Your task to perform on an android device: install app "HBO Max: Stream TV & Movies" Image 0: 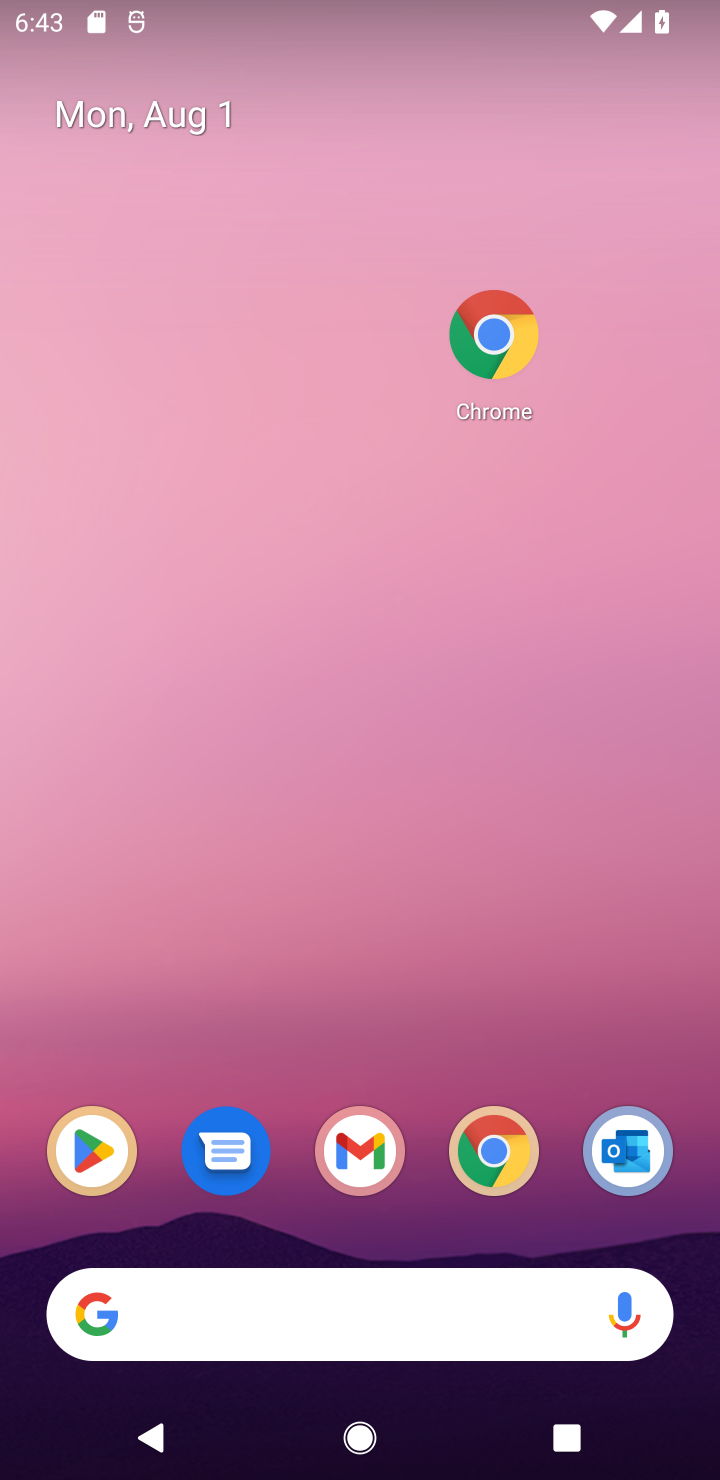
Step 0: click (104, 1150)
Your task to perform on an android device: install app "HBO Max: Stream TV & Movies" Image 1: 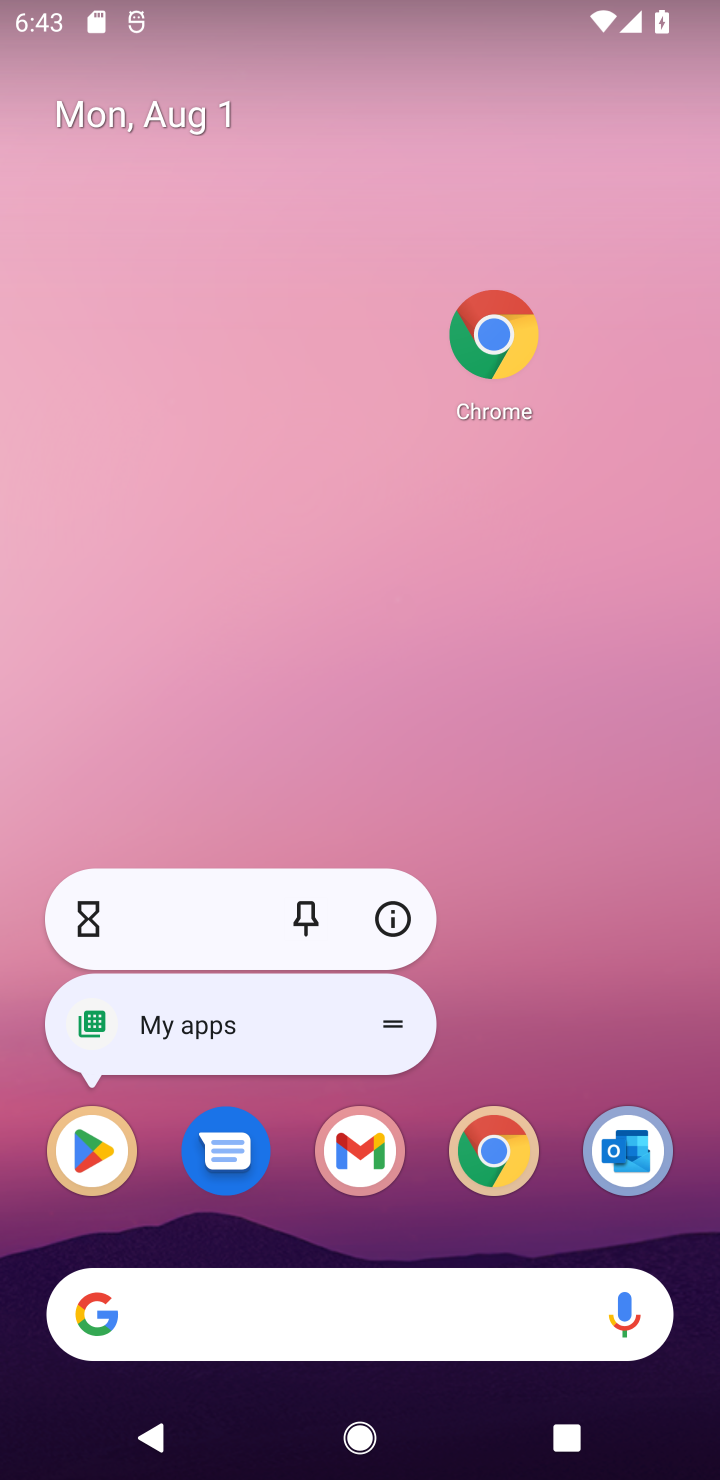
Step 1: click (104, 1150)
Your task to perform on an android device: install app "HBO Max: Stream TV & Movies" Image 2: 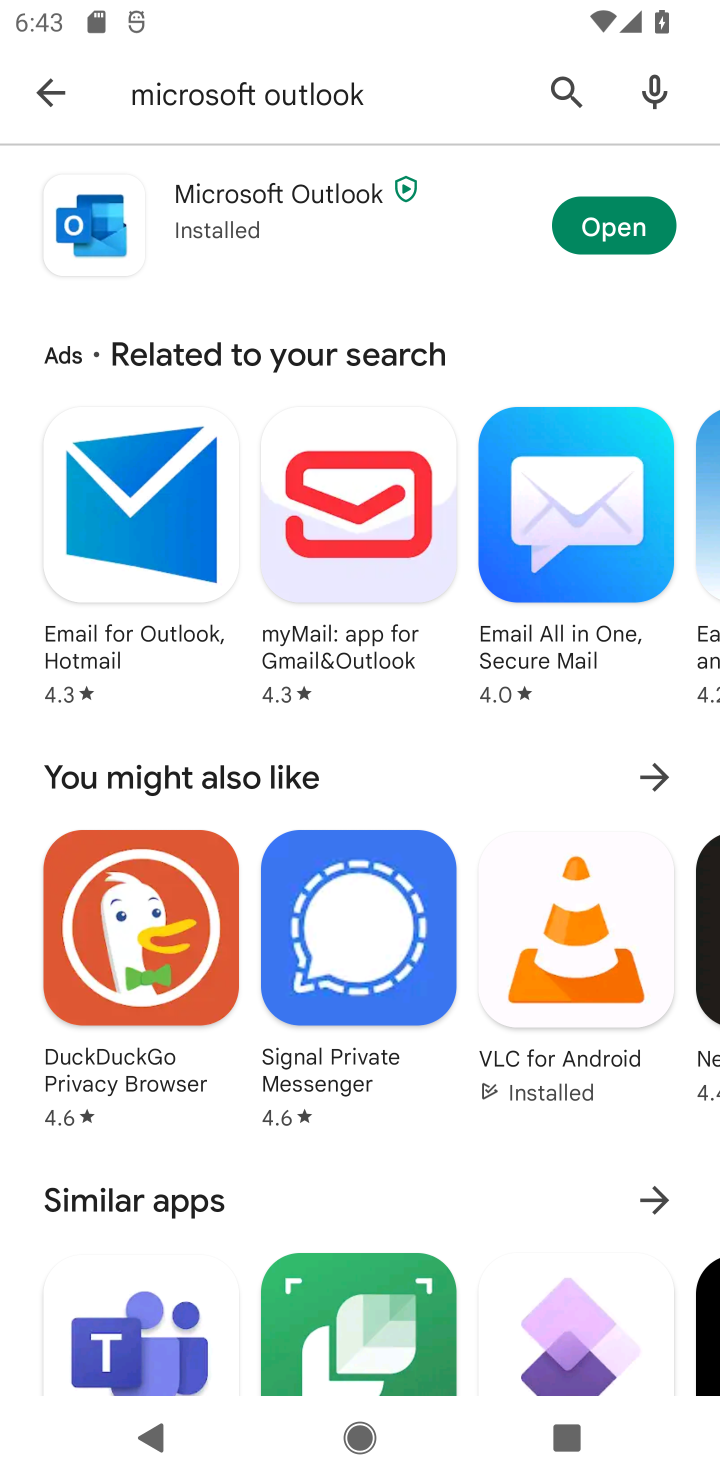
Step 2: click (559, 86)
Your task to perform on an android device: install app "HBO Max: Stream TV & Movies" Image 3: 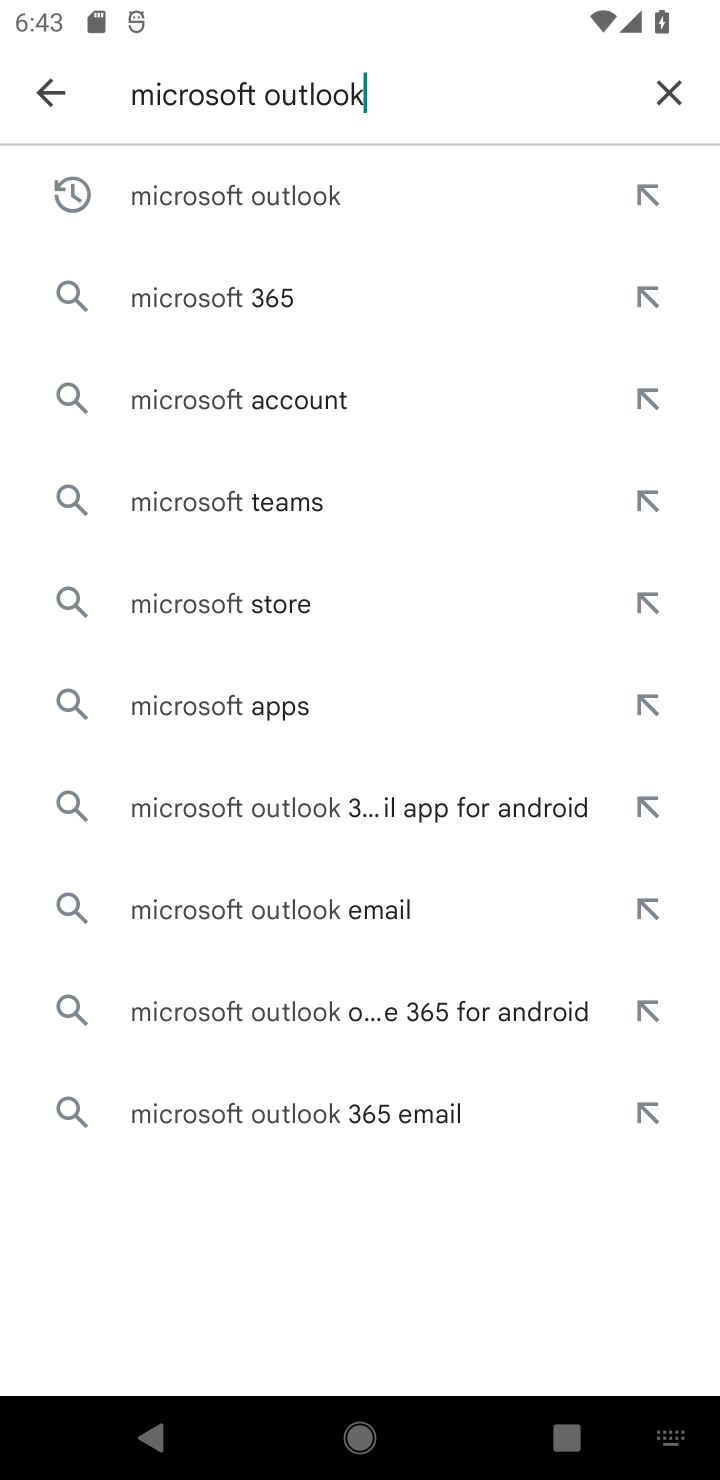
Step 3: click (668, 86)
Your task to perform on an android device: install app "HBO Max: Stream TV & Movies" Image 4: 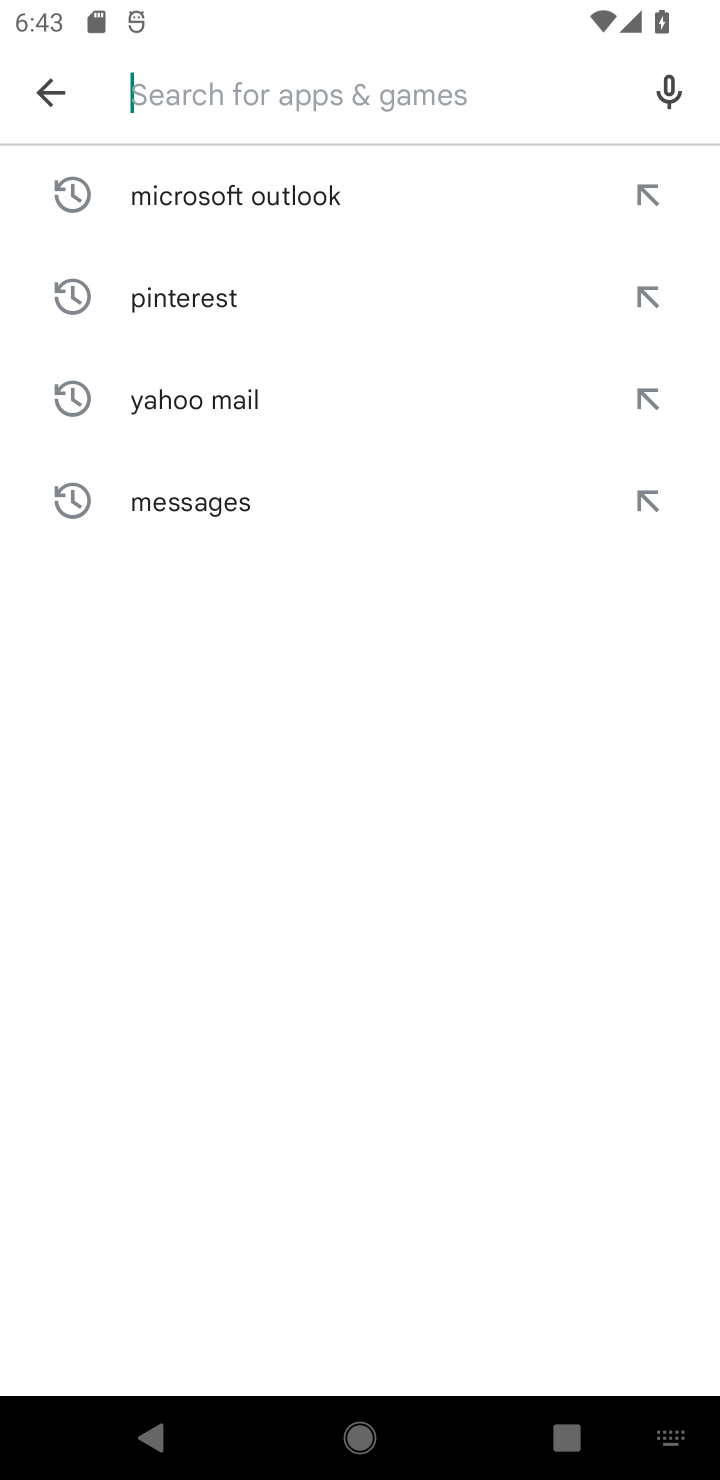
Step 4: type "HBO Max: Stream TV & Movies"
Your task to perform on an android device: install app "HBO Max: Stream TV & Movies" Image 5: 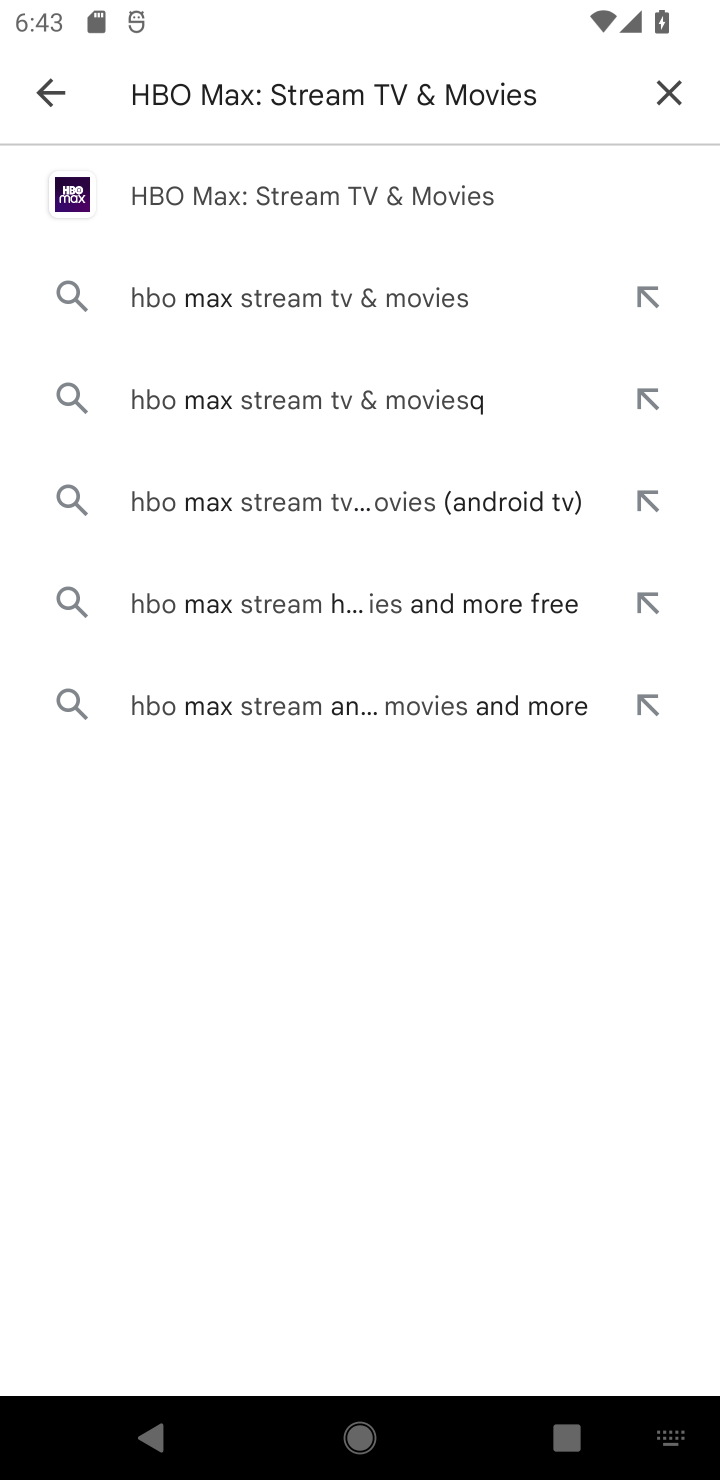
Step 5: click (224, 201)
Your task to perform on an android device: install app "HBO Max: Stream TV & Movies" Image 6: 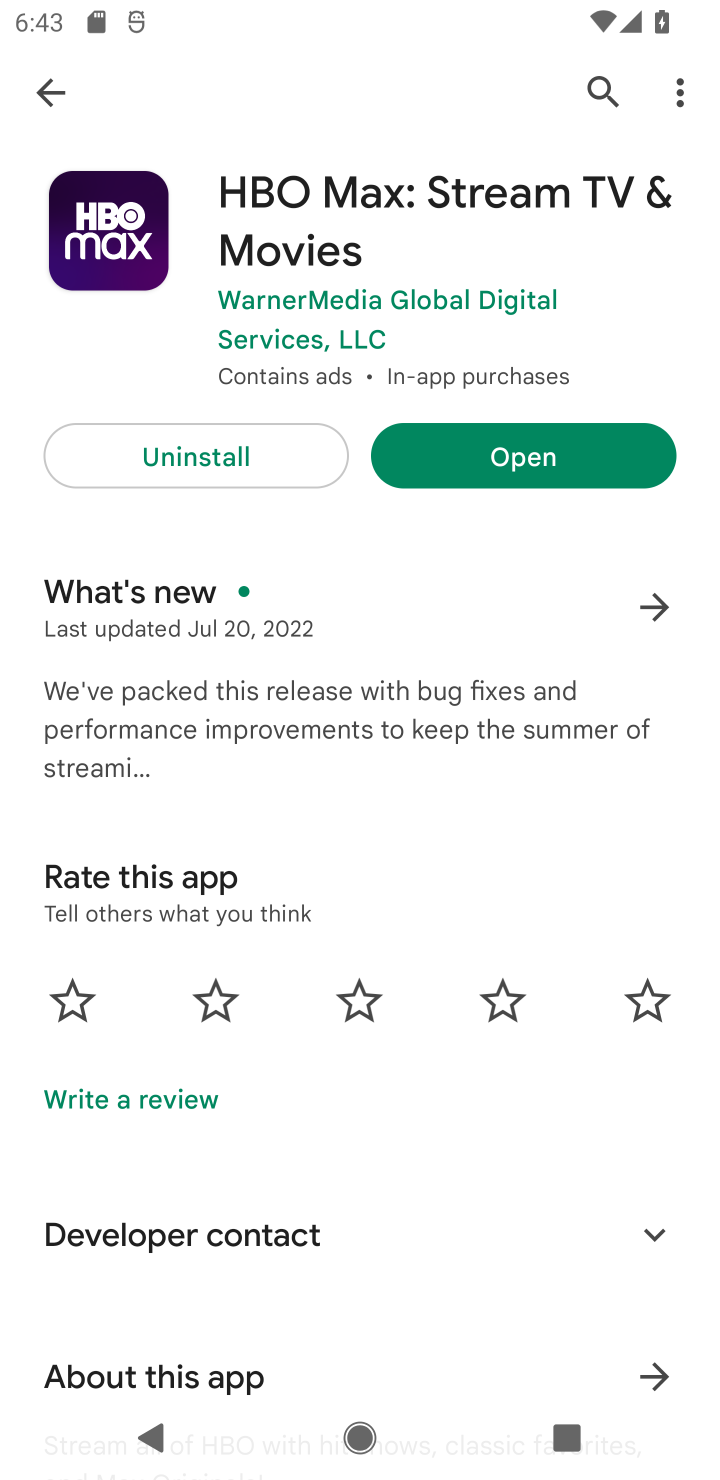
Step 6: task complete